Your task to perform on an android device: install app "Google Chat" Image 0: 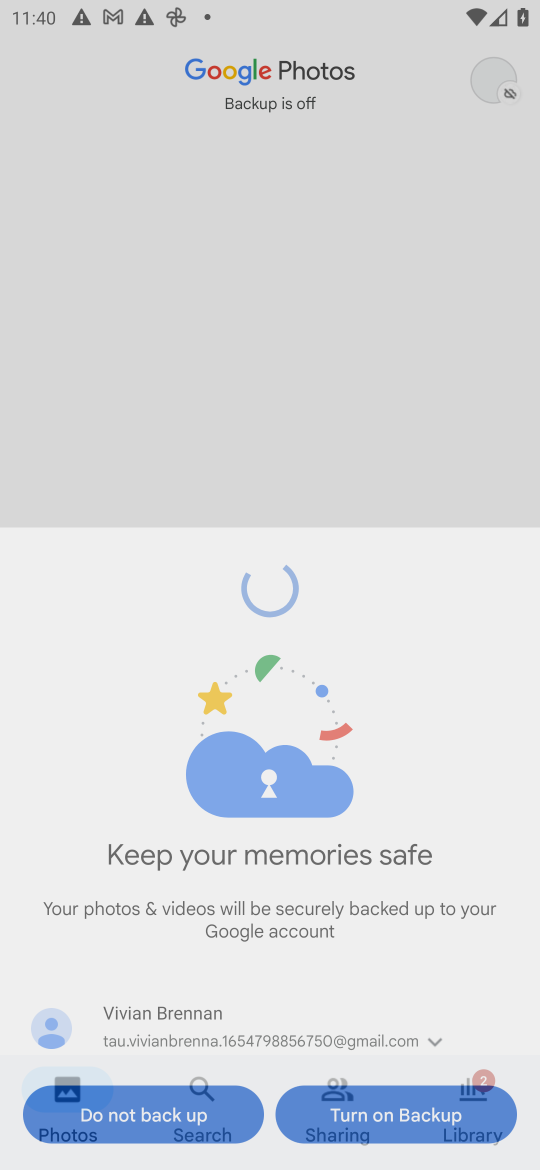
Step 0: press home button
Your task to perform on an android device: install app "Google Chat" Image 1: 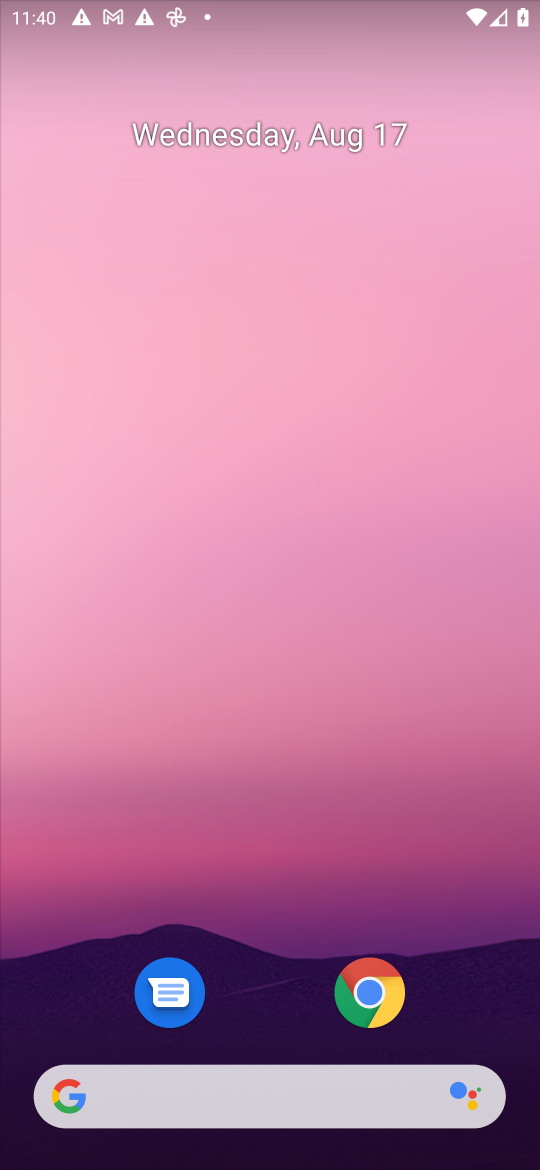
Step 1: drag from (490, 988) to (155, 18)
Your task to perform on an android device: install app "Google Chat" Image 2: 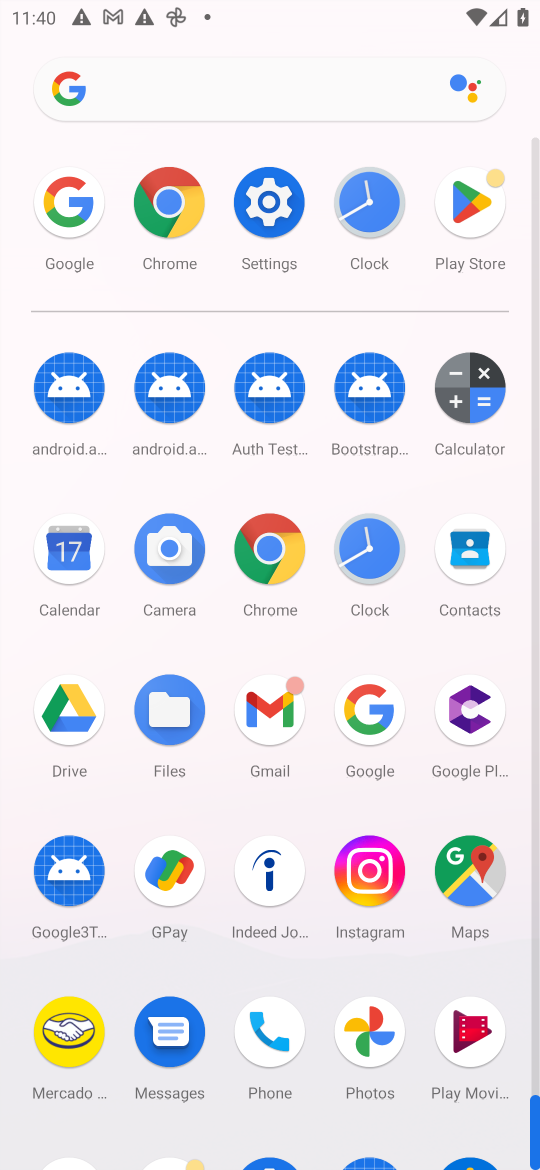
Step 2: click (459, 205)
Your task to perform on an android device: install app "Google Chat" Image 3: 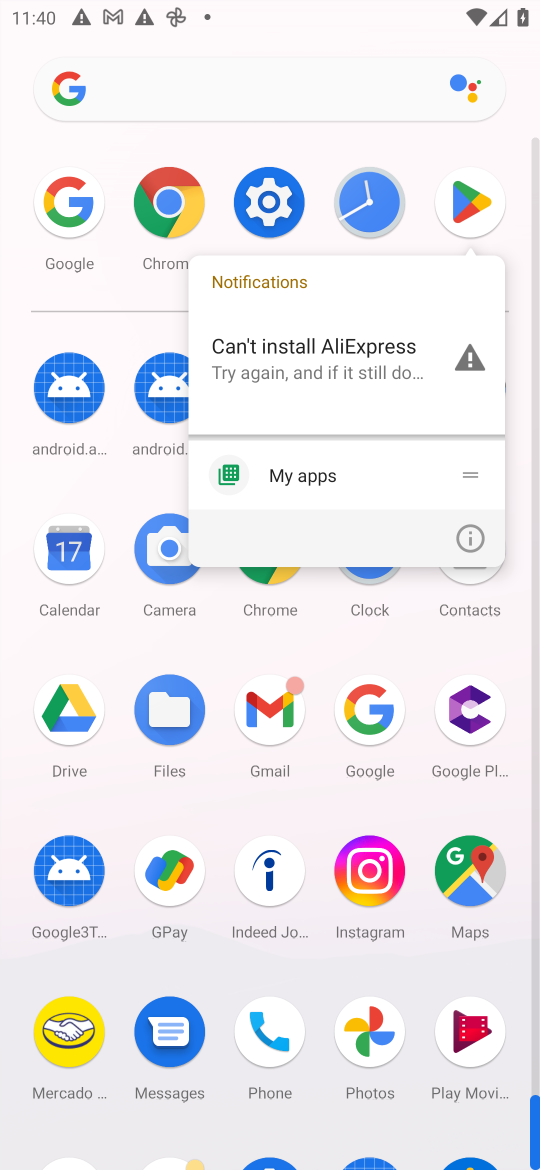
Step 3: click (462, 209)
Your task to perform on an android device: install app "Google Chat" Image 4: 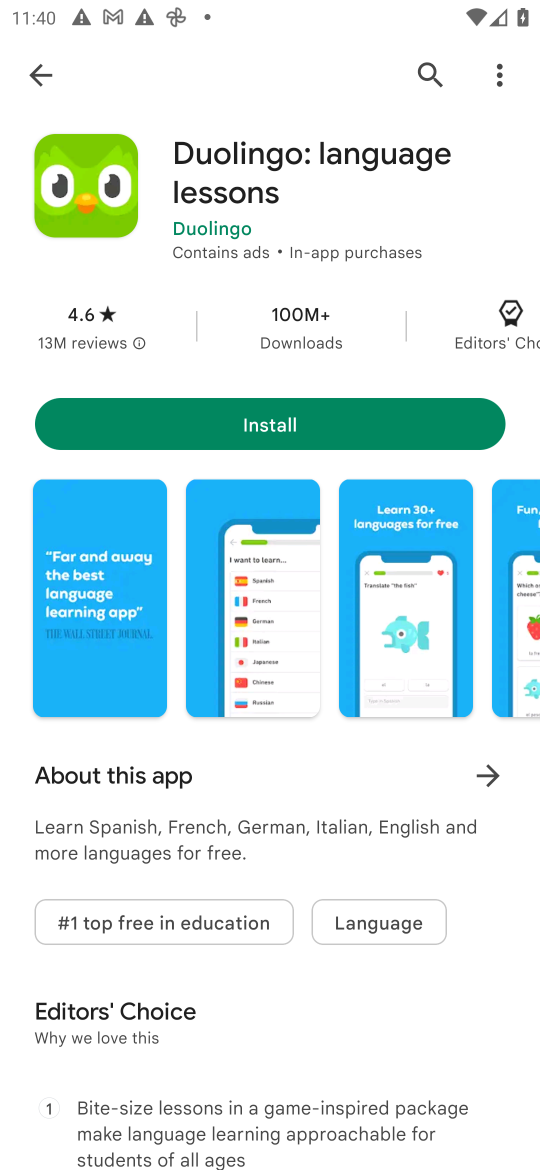
Step 4: press back button
Your task to perform on an android device: install app "Google Chat" Image 5: 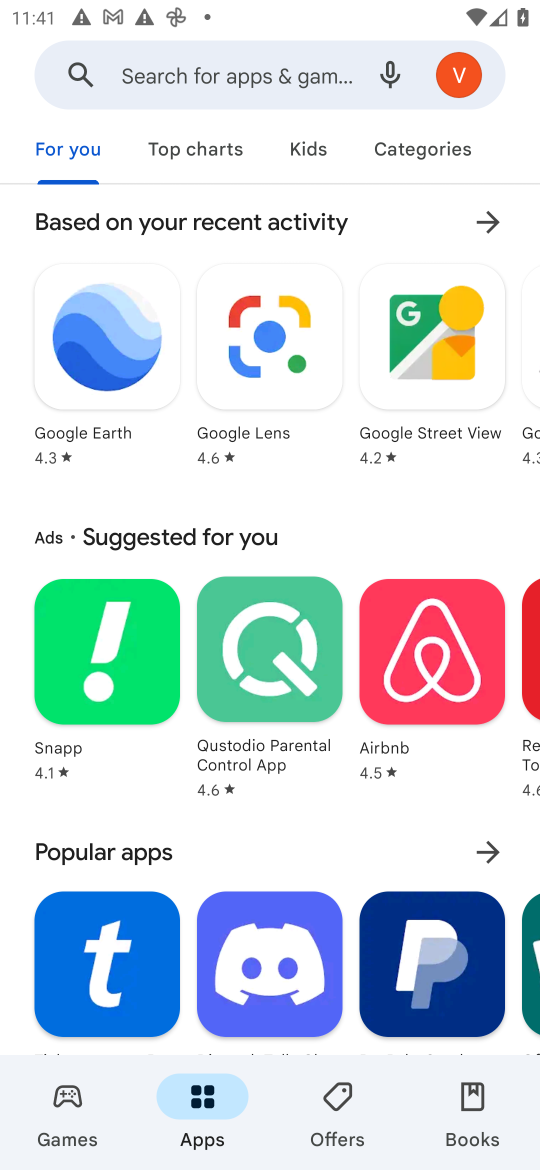
Step 5: click (233, 88)
Your task to perform on an android device: install app "Google Chat" Image 6: 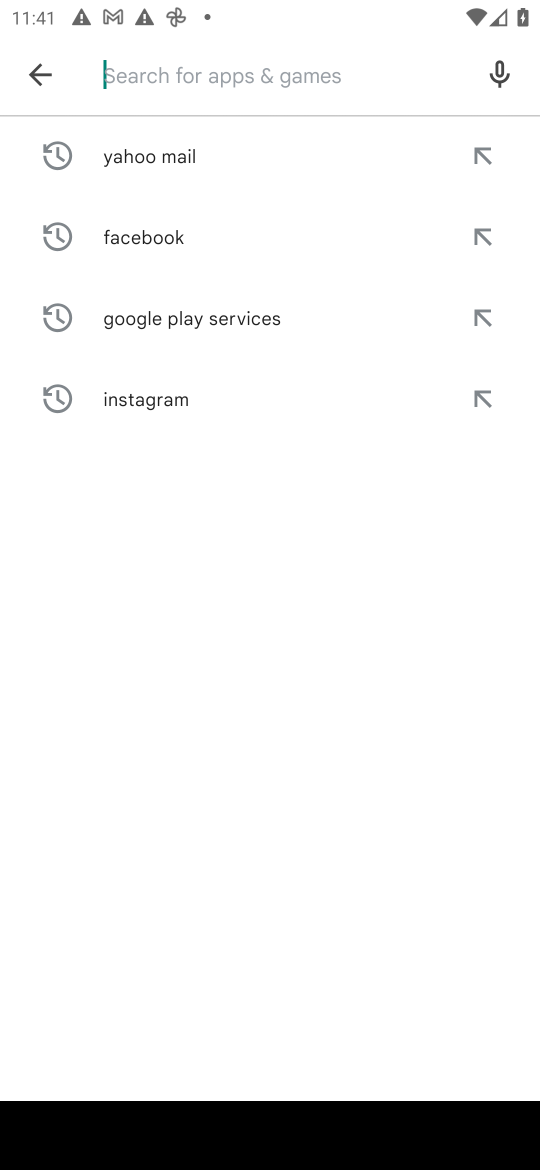
Step 6: type "Google Chat"
Your task to perform on an android device: install app "Google Chat" Image 7: 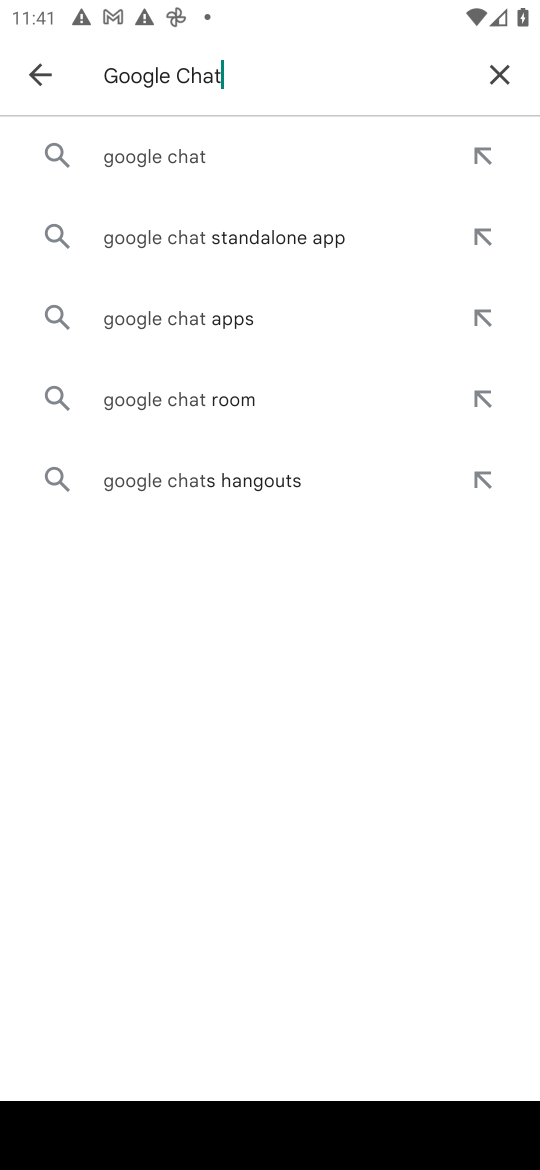
Step 7: click (183, 172)
Your task to perform on an android device: install app "Google Chat" Image 8: 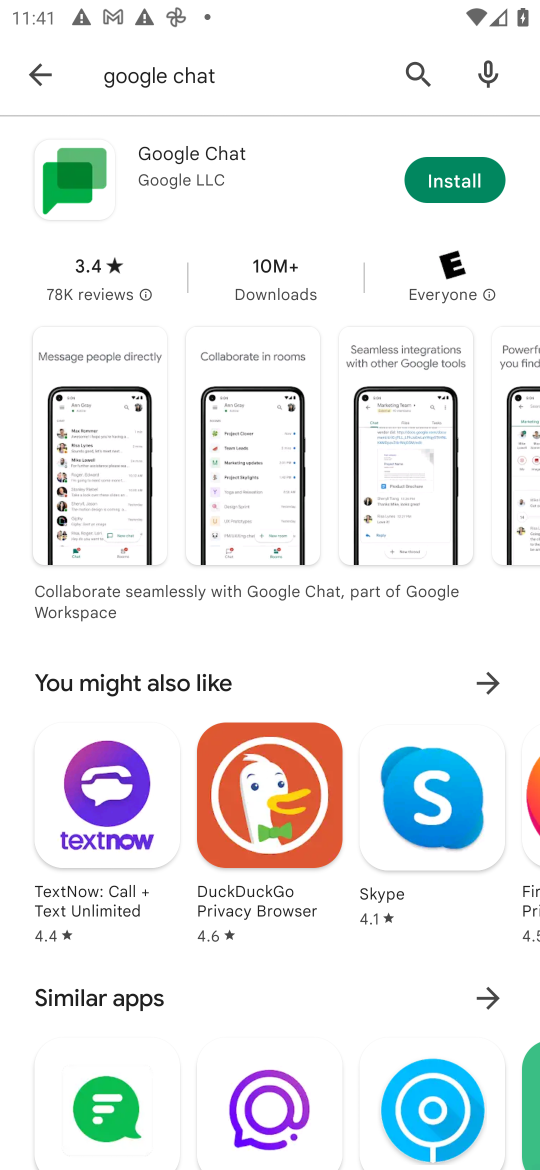
Step 8: click (446, 185)
Your task to perform on an android device: install app "Google Chat" Image 9: 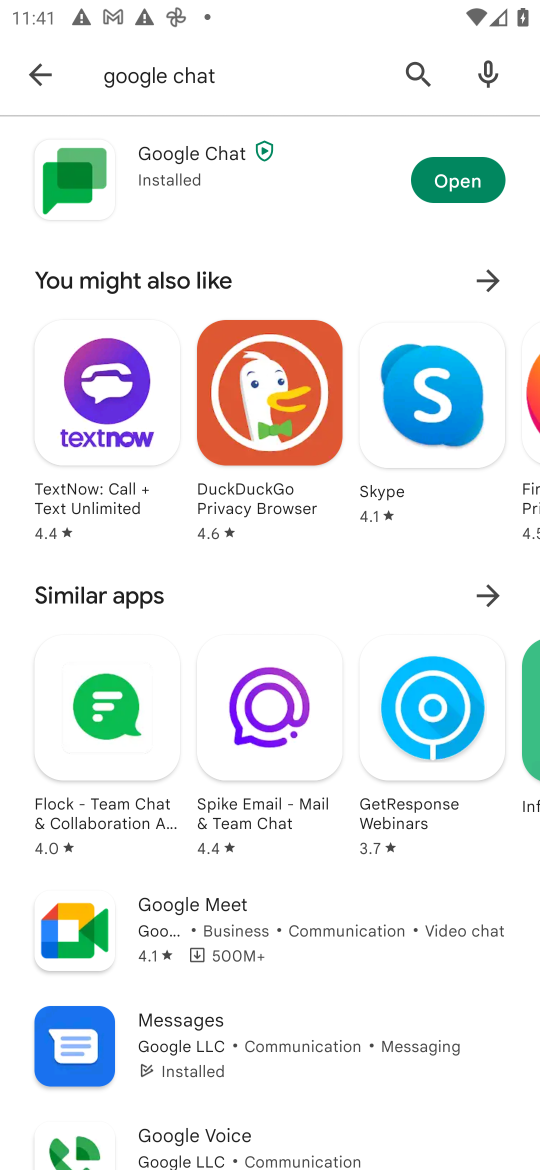
Step 9: task complete